Your task to perform on an android device: change alarm snooze length Image 0: 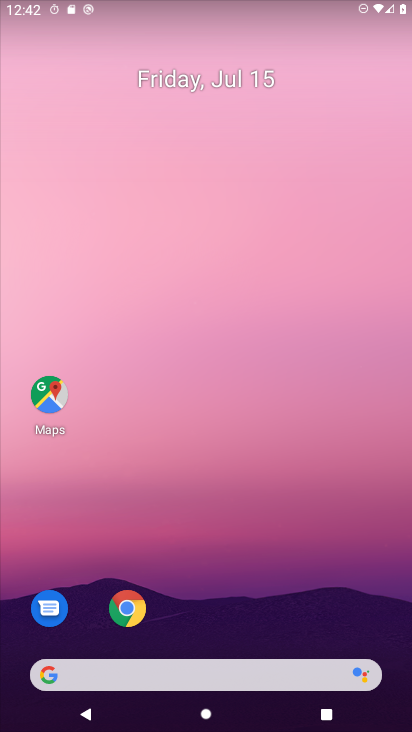
Step 0: drag from (271, 677) to (379, 4)
Your task to perform on an android device: change alarm snooze length Image 1: 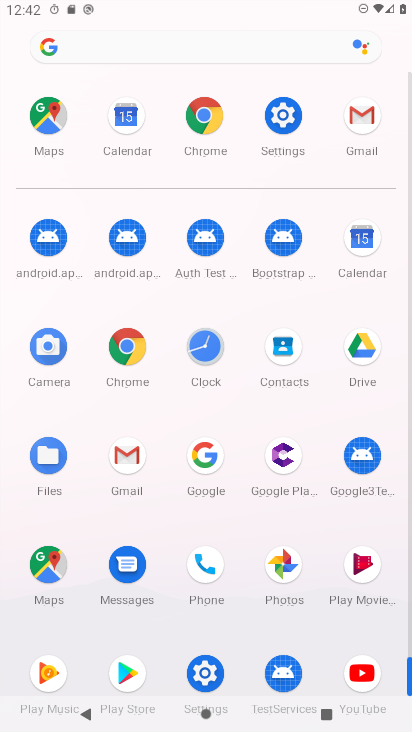
Step 1: click (208, 351)
Your task to perform on an android device: change alarm snooze length Image 2: 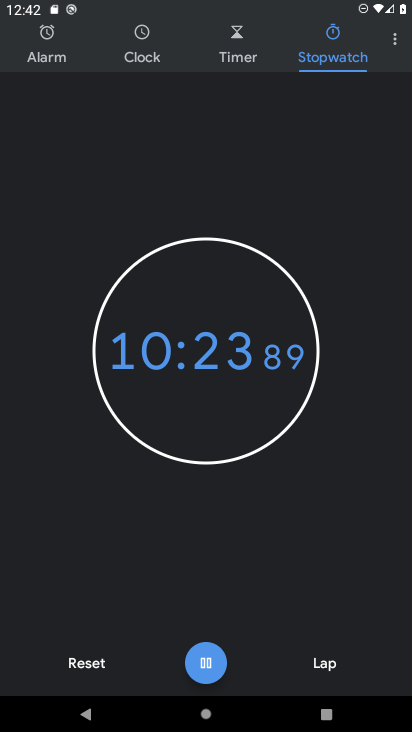
Step 2: drag from (392, 37) to (345, 256)
Your task to perform on an android device: change alarm snooze length Image 3: 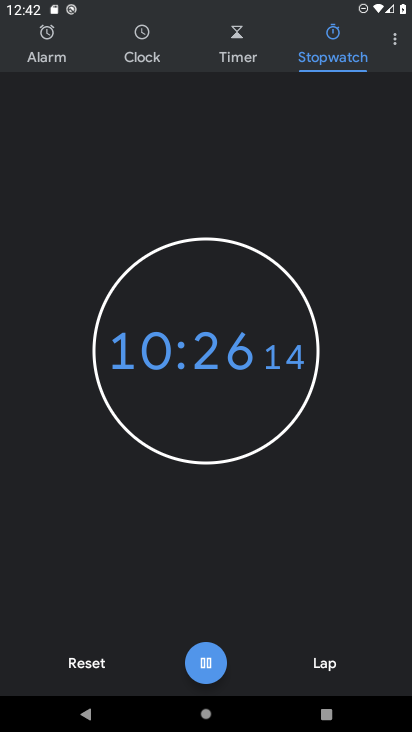
Step 3: click (399, 44)
Your task to perform on an android device: change alarm snooze length Image 4: 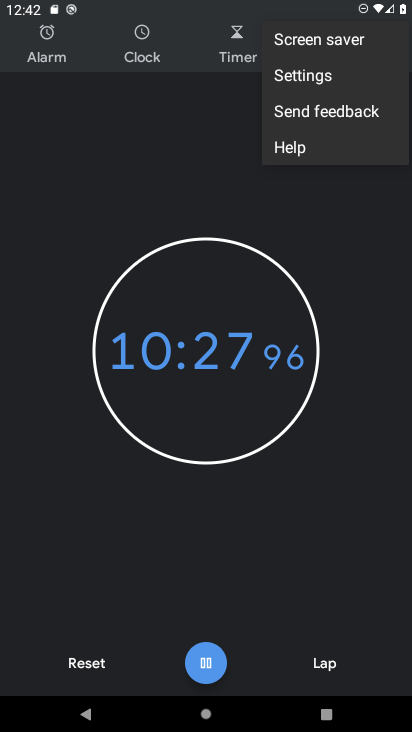
Step 4: click (335, 78)
Your task to perform on an android device: change alarm snooze length Image 5: 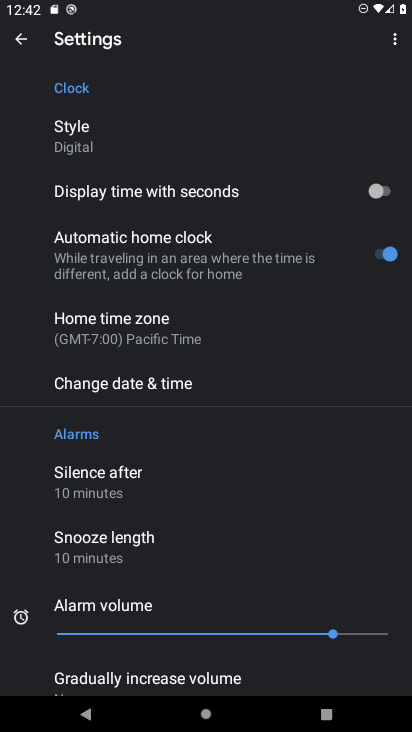
Step 5: click (131, 547)
Your task to perform on an android device: change alarm snooze length Image 6: 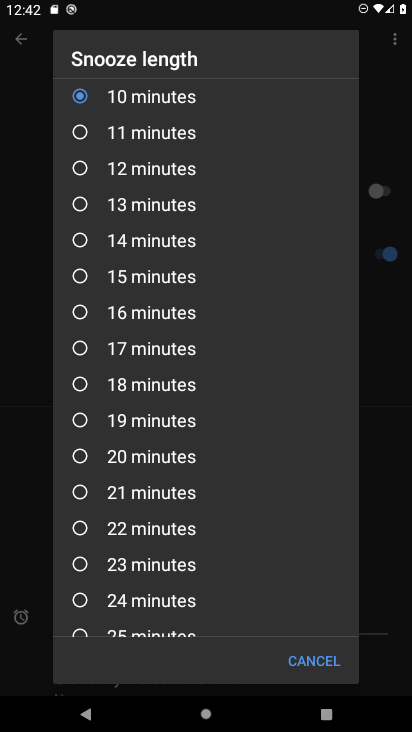
Step 6: click (81, 160)
Your task to perform on an android device: change alarm snooze length Image 7: 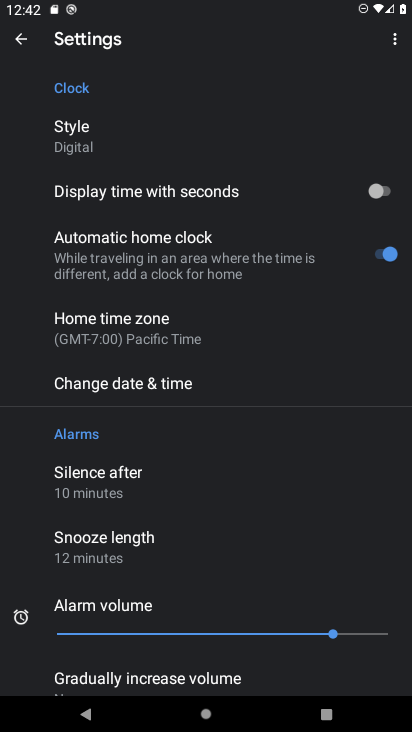
Step 7: task complete